Your task to perform on an android device: Turn on the flashlight Image 0: 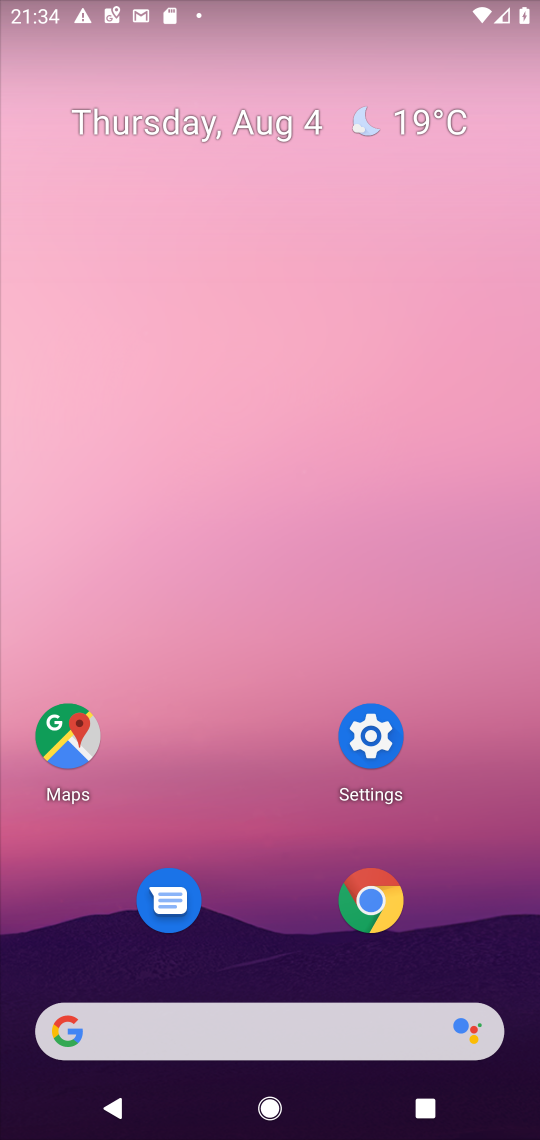
Step 0: press home button
Your task to perform on an android device: Turn on the flashlight Image 1: 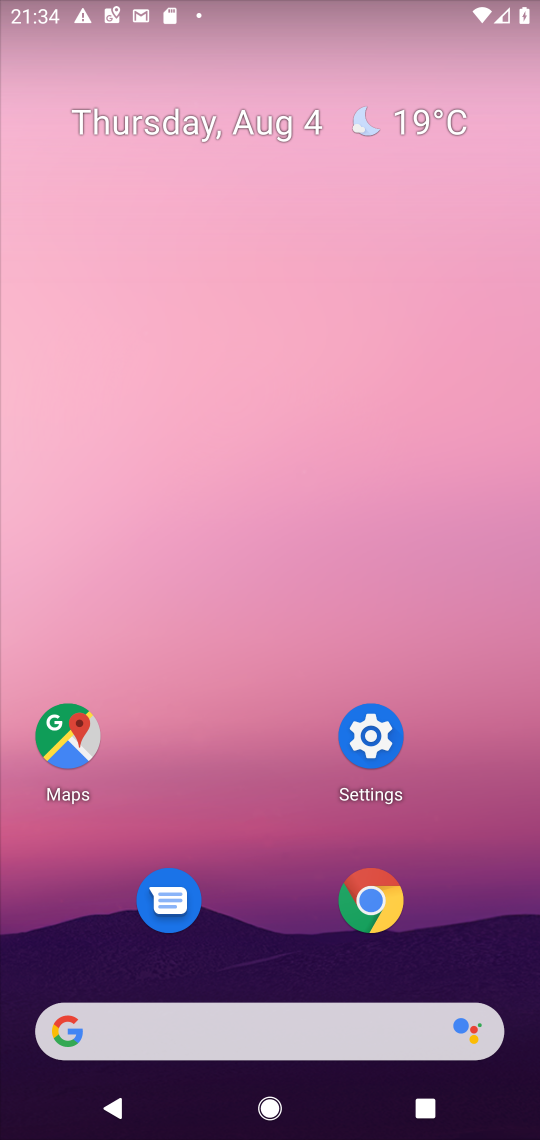
Step 1: task complete